Your task to perform on an android device: Open settings on Google Maps Image 0: 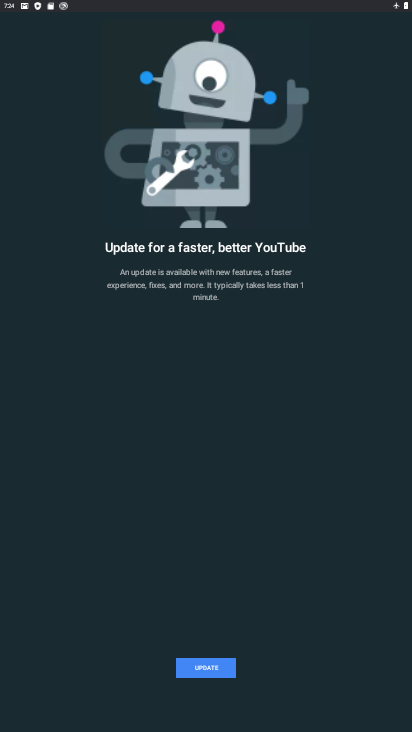
Step 0: press home button
Your task to perform on an android device: Open settings on Google Maps Image 1: 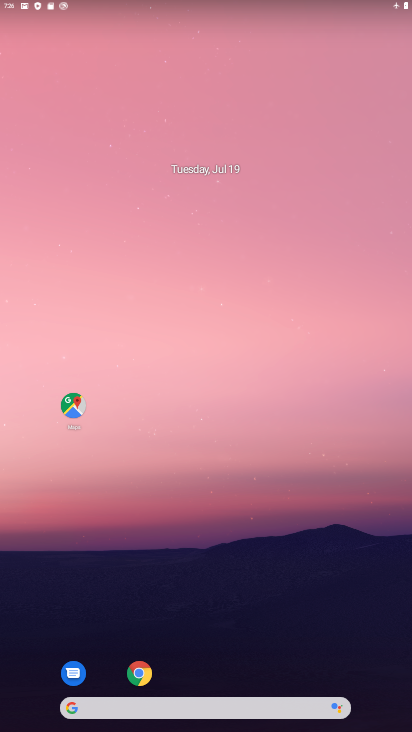
Step 1: drag from (308, 654) to (363, 0)
Your task to perform on an android device: Open settings on Google Maps Image 2: 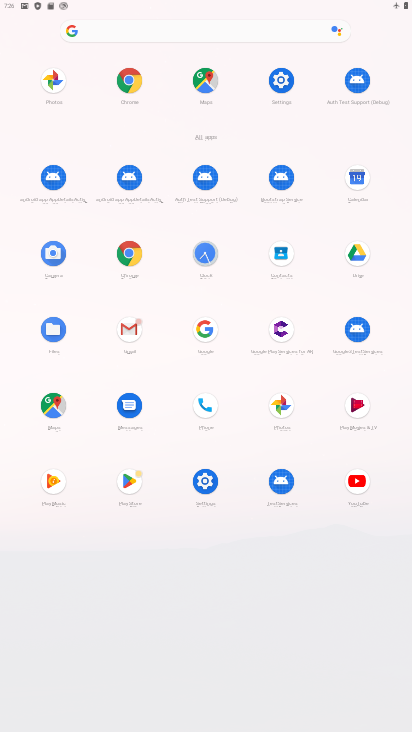
Step 2: click (209, 80)
Your task to perform on an android device: Open settings on Google Maps Image 3: 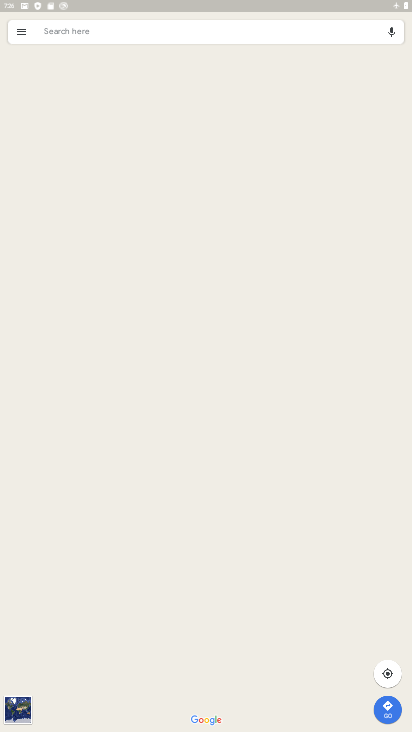
Step 3: click (14, 23)
Your task to perform on an android device: Open settings on Google Maps Image 4: 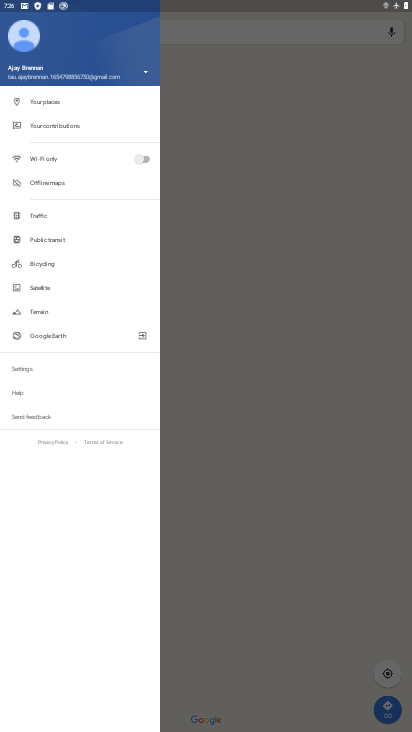
Step 4: click (40, 367)
Your task to perform on an android device: Open settings on Google Maps Image 5: 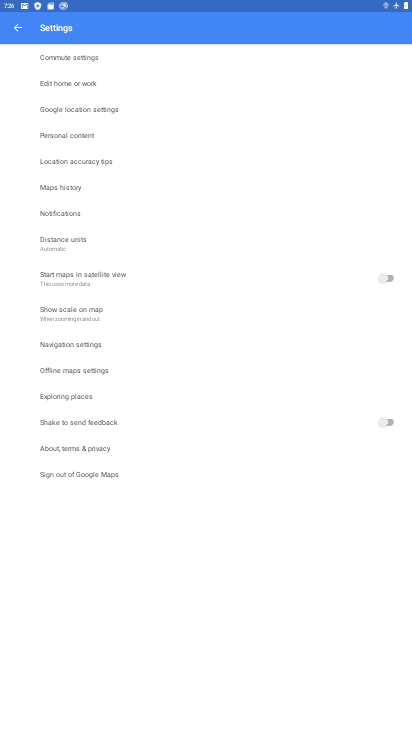
Step 5: task complete